Your task to perform on an android device: Open the phone app and click the voicemail tab. Image 0: 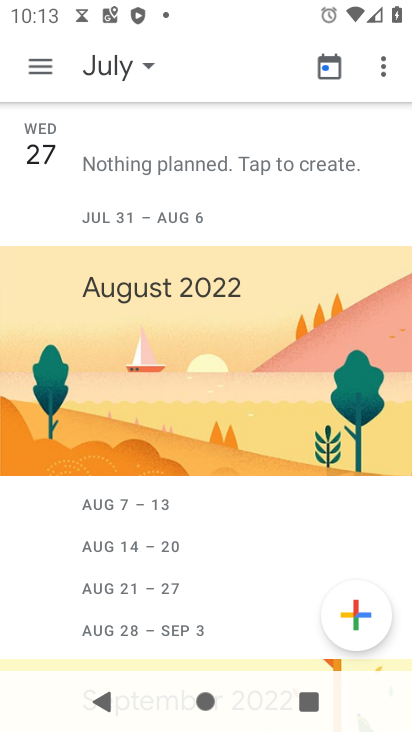
Step 0: press home button
Your task to perform on an android device: Open the phone app and click the voicemail tab. Image 1: 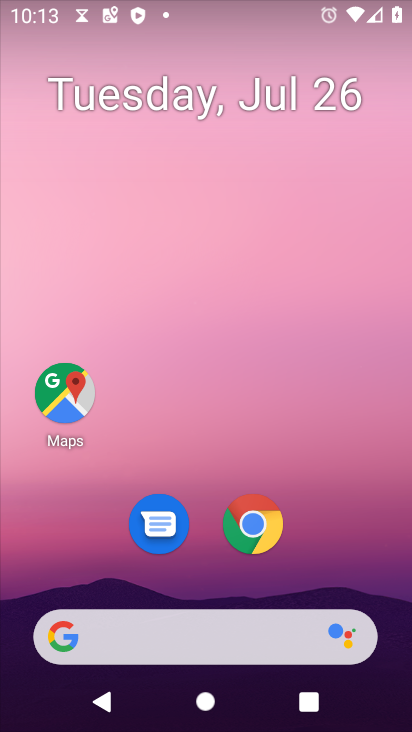
Step 1: drag from (203, 632) to (340, 105)
Your task to perform on an android device: Open the phone app and click the voicemail tab. Image 2: 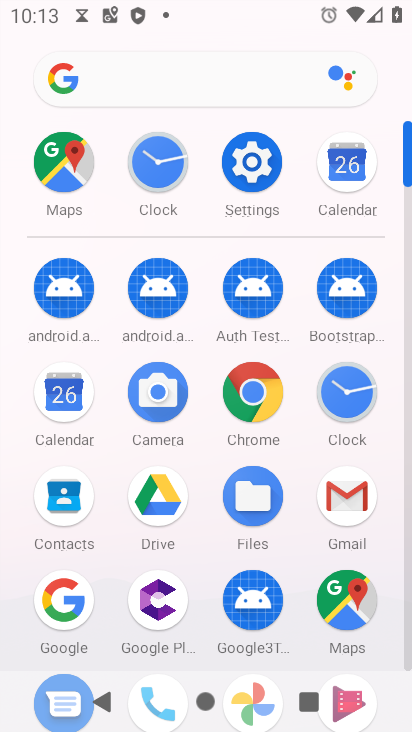
Step 2: drag from (199, 562) to (335, 159)
Your task to perform on an android device: Open the phone app and click the voicemail tab. Image 3: 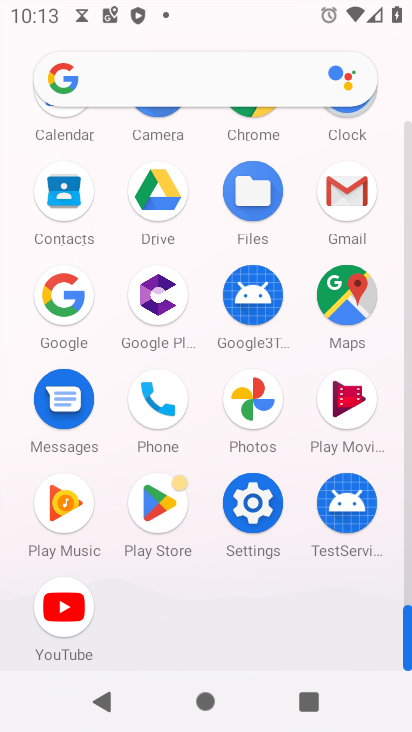
Step 3: click (154, 403)
Your task to perform on an android device: Open the phone app and click the voicemail tab. Image 4: 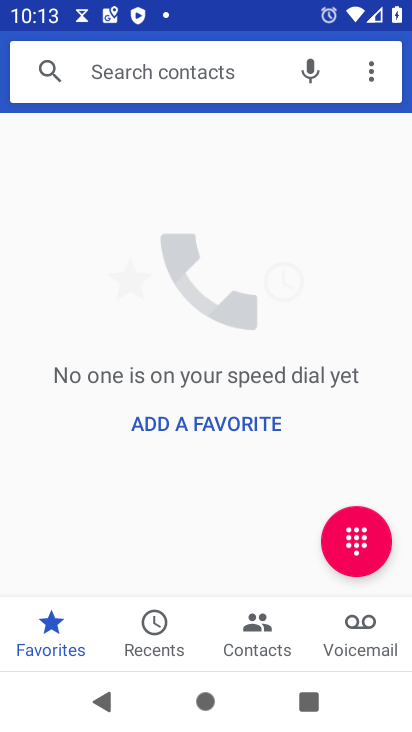
Step 4: click (368, 633)
Your task to perform on an android device: Open the phone app and click the voicemail tab. Image 5: 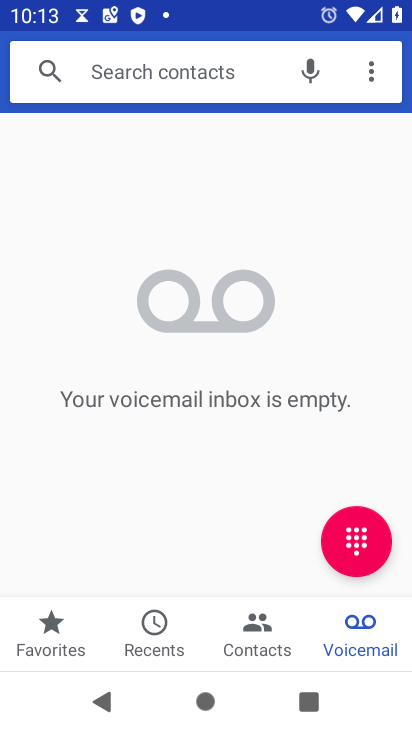
Step 5: task complete